Your task to perform on an android device: turn off notifications settings in the gmail app Image 0: 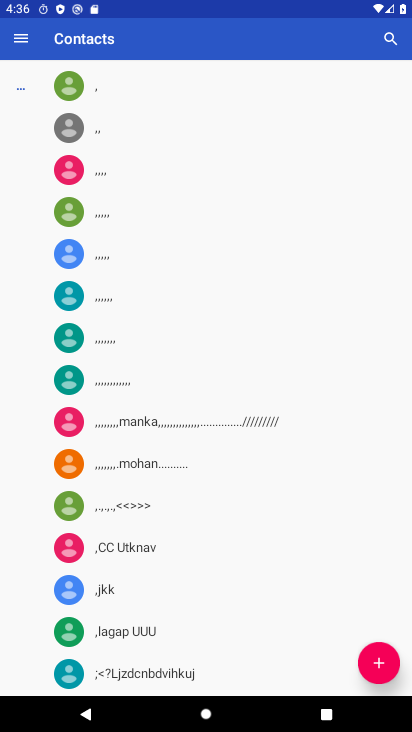
Step 0: press back button
Your task to perform on an android device: turn off notifications settings in the gmail app Image 1: 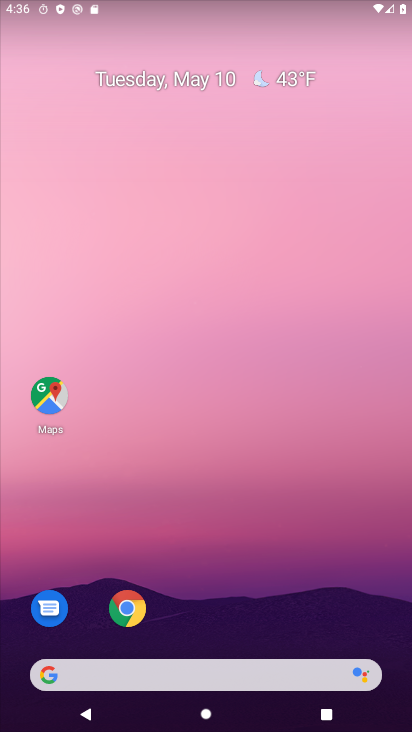
Step 1: drag from (282, 588) to (35, 41)
Your task to perform on an android device: turn off notifications settings in the gmail app Image 2: 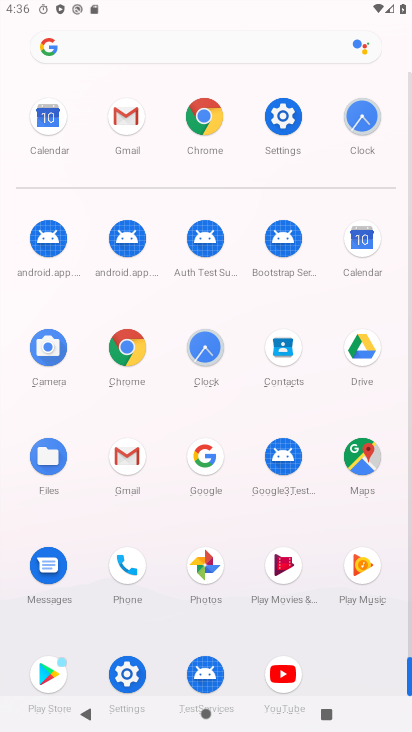
Step 2: click (115, 453)
Your task to perform on an android device: turn off notifications settings in the gmail app Image 3: 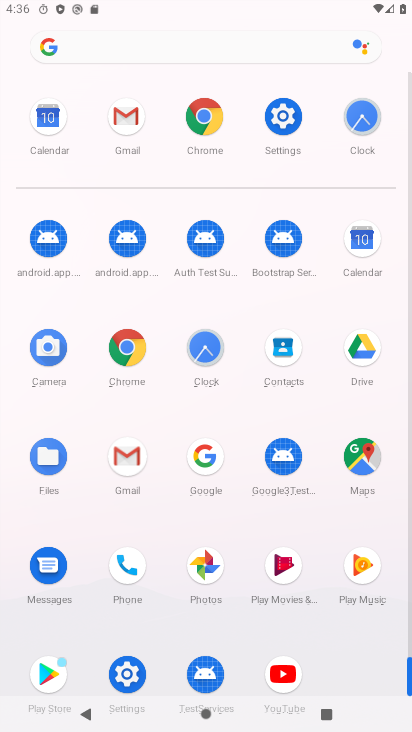
Step 3: click (116, 453)
Your task to perform on an android device: turn off notifications settings in the gmail app Image 4: 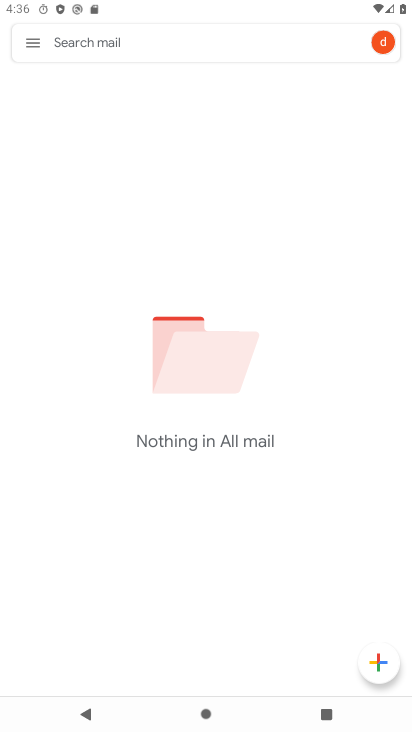
Step 4: click (30, 48)
Your task to perform on an android device: turn off notifications settings in the gmail app Image 5: 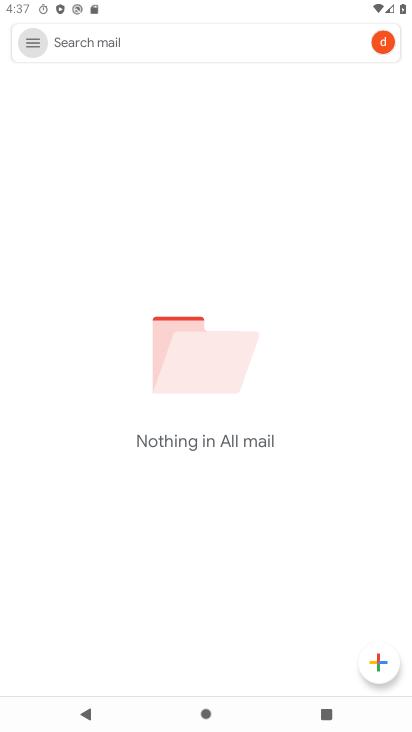
Step 5: click (30, 48)
Your task to perform on an android device: turn off notifications settings in the gmail app Image 6: 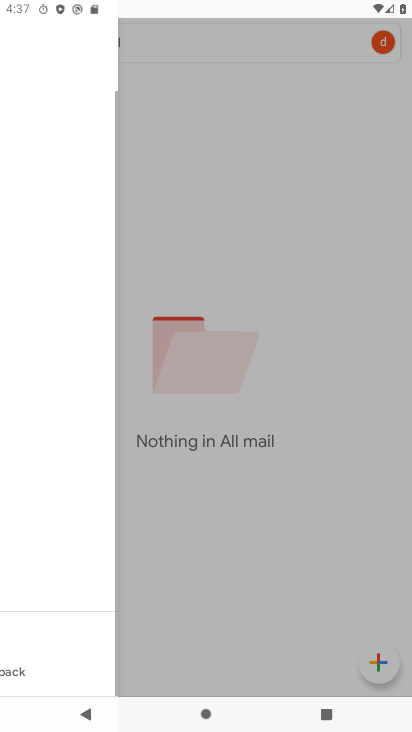
Step 6: click (30, 49)
Your task to perform on an android device: turn off notifications settings in the gmail app Image 7: 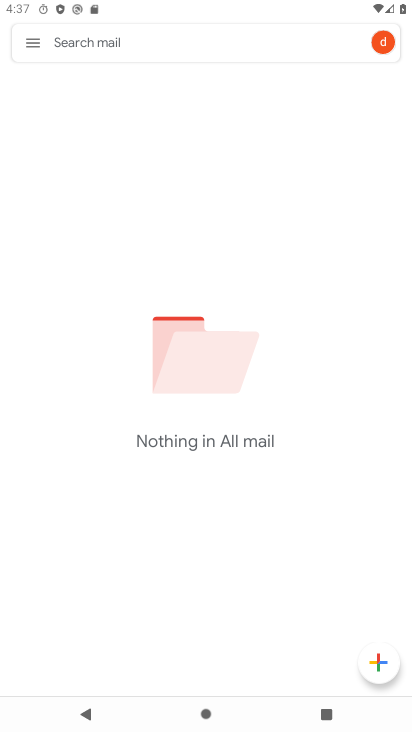
Step 7: click (30, 49)
Your task to perform on an android device: turn off notifications settings in the gmail app Image 8: 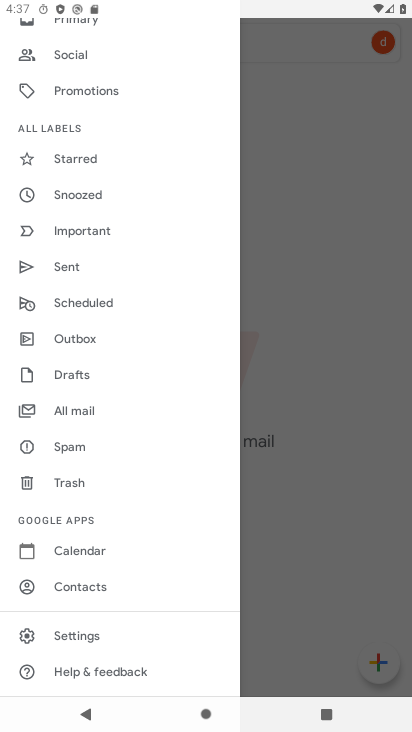
Step 8: click (88, 635)
Your task to perform on an android device: turn off notifications settings in the gmail app Image 9: 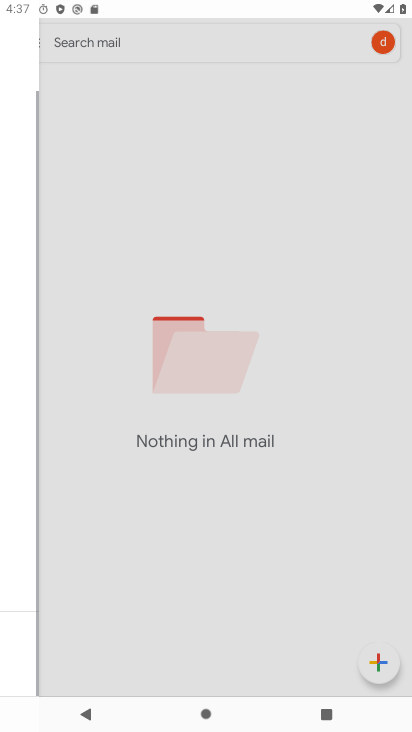
Step 9: click (85, 635)
Your task to perform on an android device: turn off notifications settings in the gmail app Image 10: 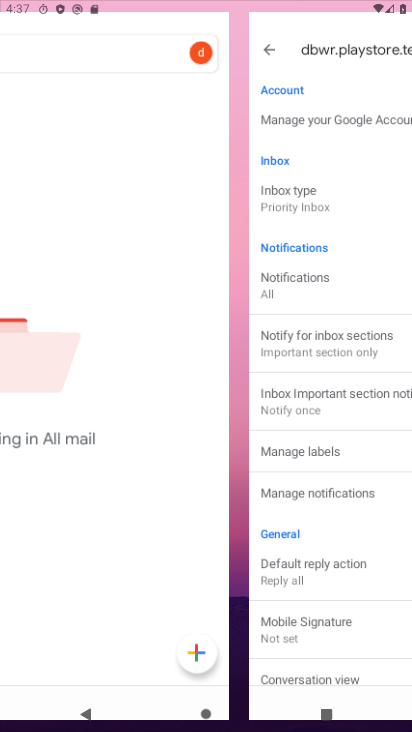
Step 10: click (85, 635)
Your task to perform on an android device: turn off notifications settings in the gmail app Image 11: 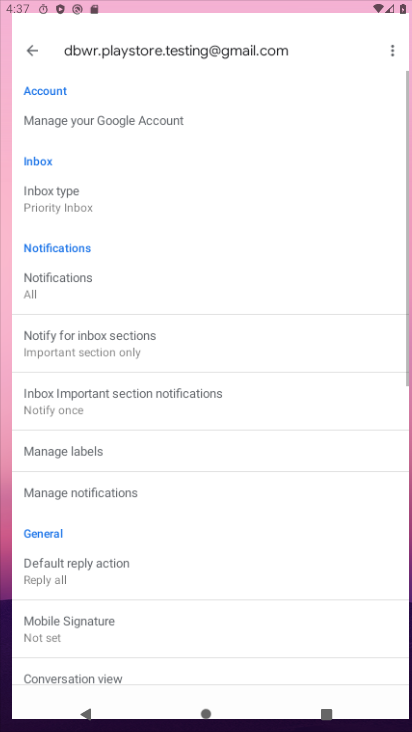
Step 11: click (85, 635)
Your task to perform on an android device: turn off notifications settings in the gmail app Image 12: 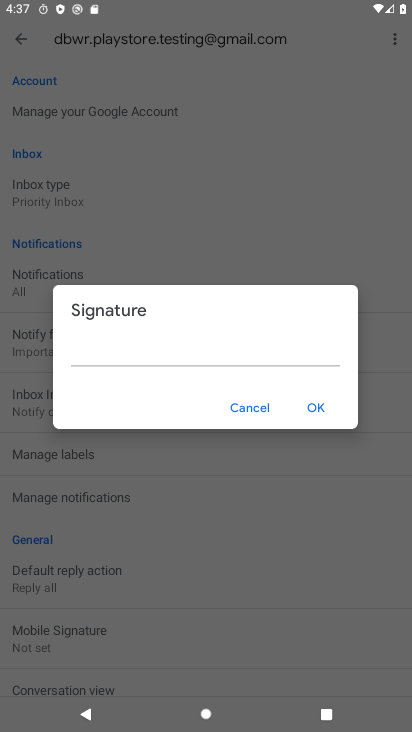
Step 12: click (248, 405)
Your task to perform on an android device: turn off notifications settings in the gmail app Image 13: 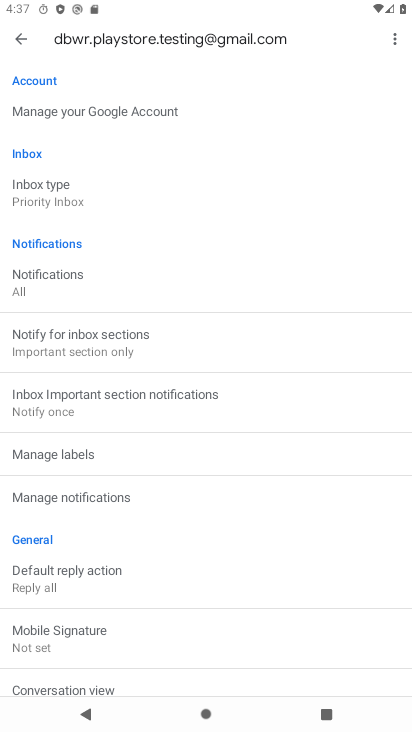
Step 13: click (41, 270)
Your task to perform on an android device: turn off notifications settings in the gmail app Image 14: 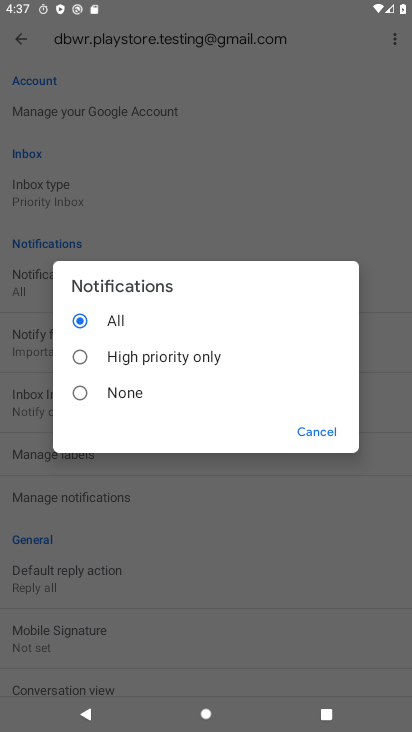
Step 14: click (80, 390)
Your task to perform on an android device: turn off notifications settings in the gmail app Image 15: 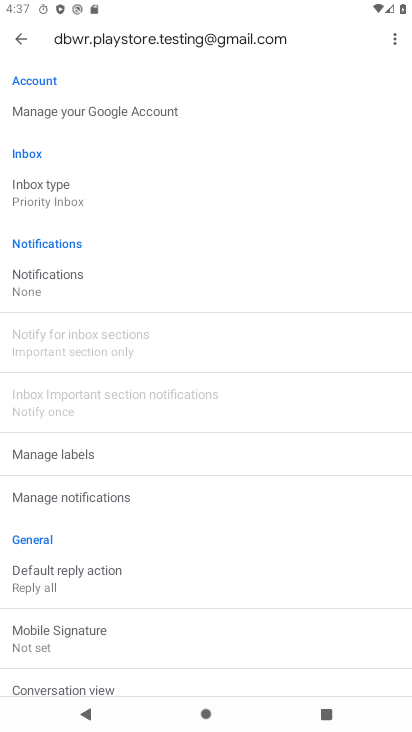
Step 15: task complete